Your task to perform on an android device: Open the phone app and click the voicemail tab. Image 0: 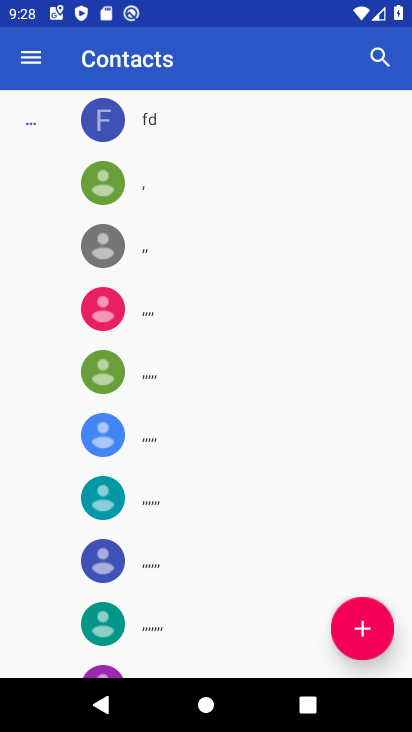
Step 0: press home button
Your task to perform on an android device: Open the phone app and click the voicemail tab. Image 1: 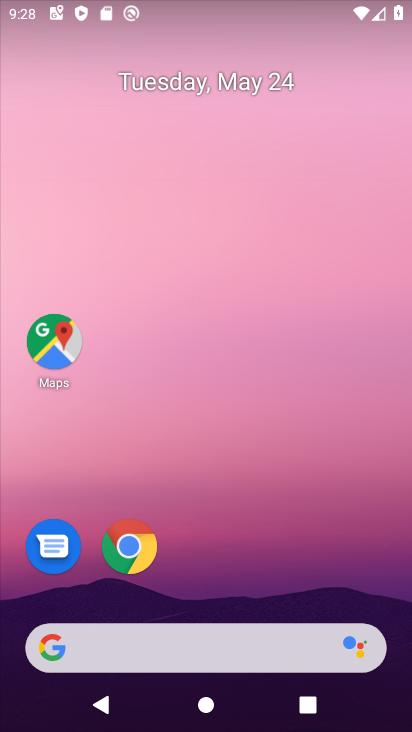
Step 1: drag from (199, 589) to (290, 238)
Your task to perform on an android device: Open the phone app and click the voicemail tab. Image 2: 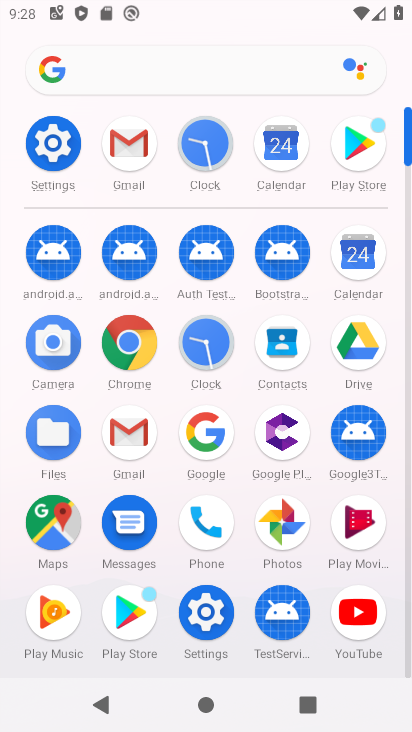
Step 2: click (210, 532)
Your task to perform on an android device: Open the phone app and click the voicemail tab. Image 3: 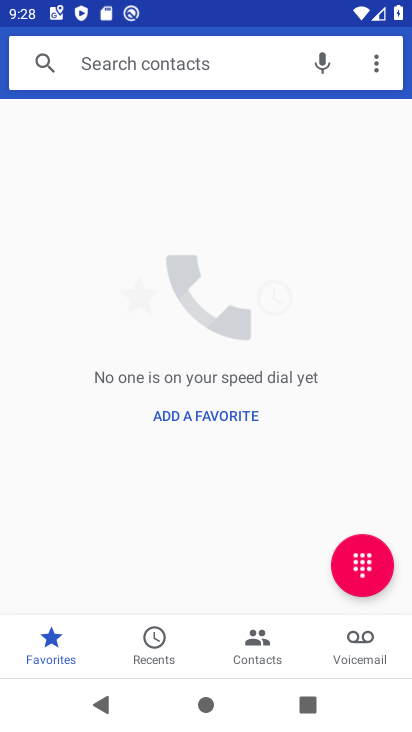
Step 3: click (342, 649)
Your task to perform on an android device: Open the phone app and click the voicemail tab. Image 4: 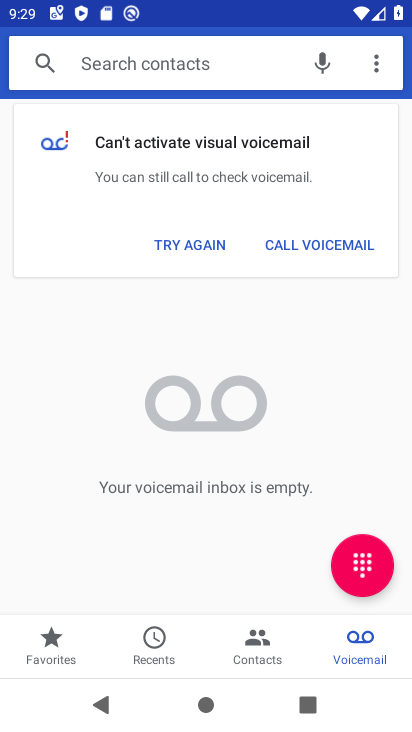
Step 4: task complete